Your task to perform on an android device: Do I have any events today? Image 0: 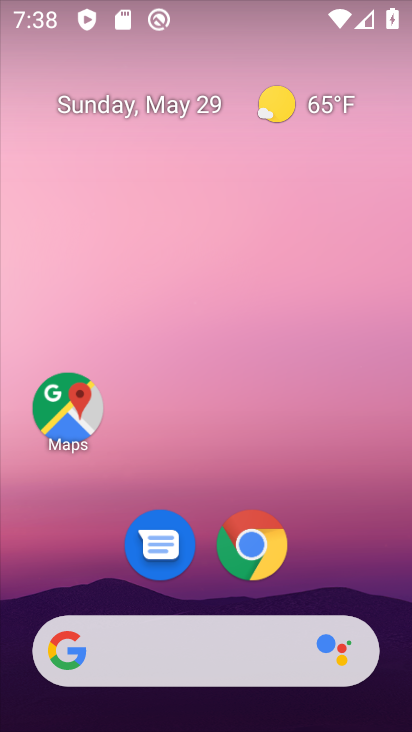
Step 0: drag from (191, 563) to (247, 263)
Your task to perform on an android device: Do I have any events today? Image 1: 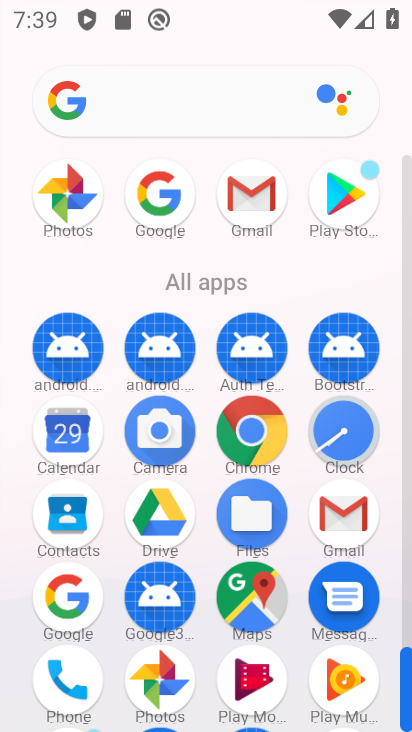
Step 1: click (71, 441)
Your task to perform on an android device: Do I have any events today? Image 2: 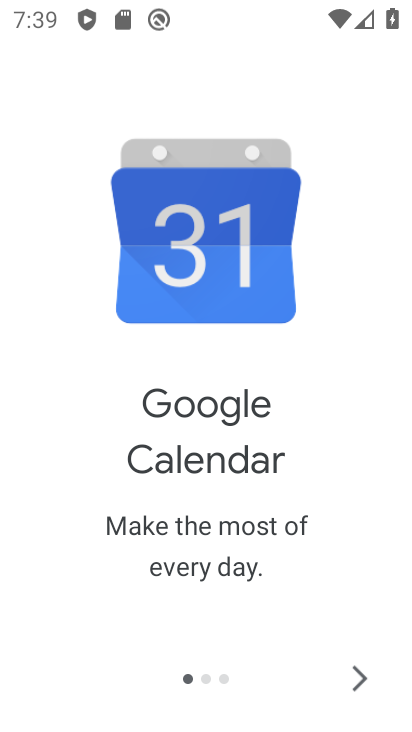
Step 2: click (364, 675)
Your task to perform on an android device: Do I have any events today? Image 3: 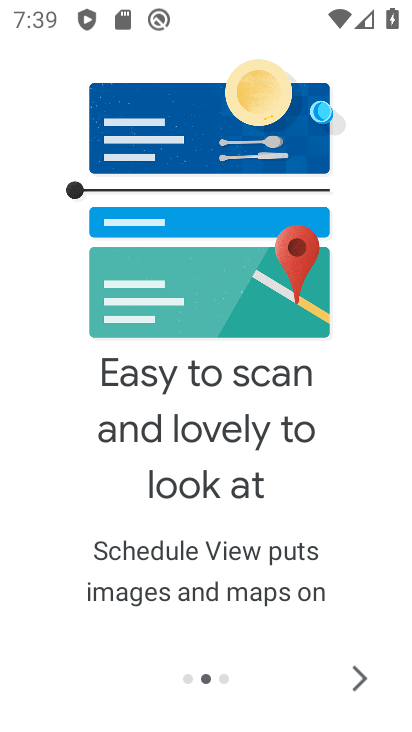
Step 3: click (365, 674)
Your task to perform on an android device: Do I have any events today? Image 4: 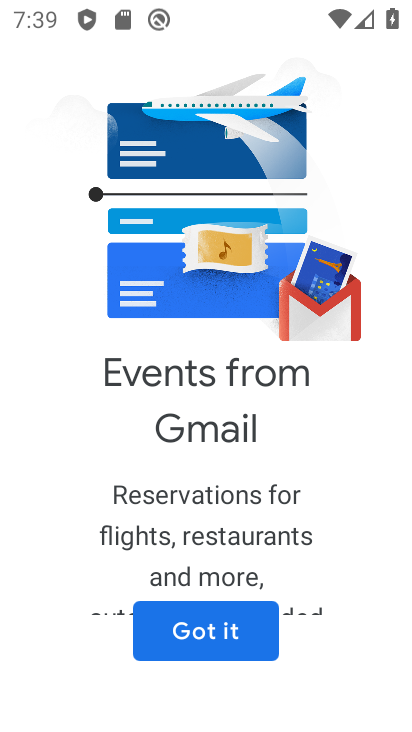
Step 4: click (233, 634)
Your task to perform on an android device: Do I have any events today? Image 5: 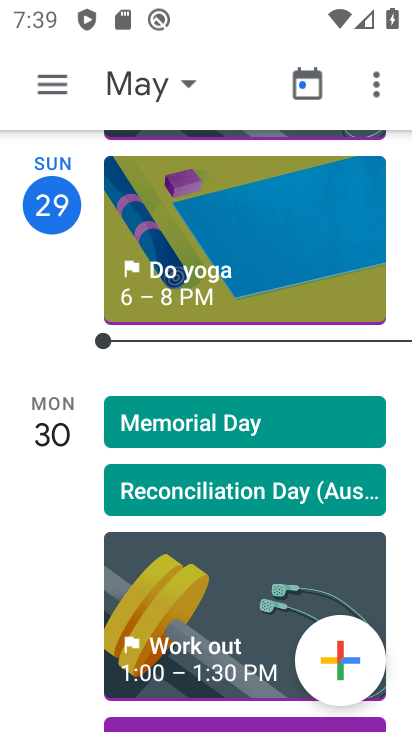
Step 5: click (183, 87)
Your task to perform on an android device: Do I have any events today? Image 6: 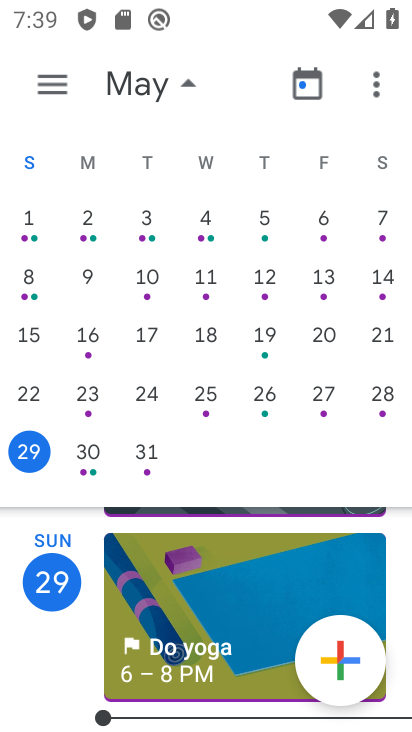
Step 6: click (78, 461)
Your task to perform on an android device: Do I have any events today? Image 7: 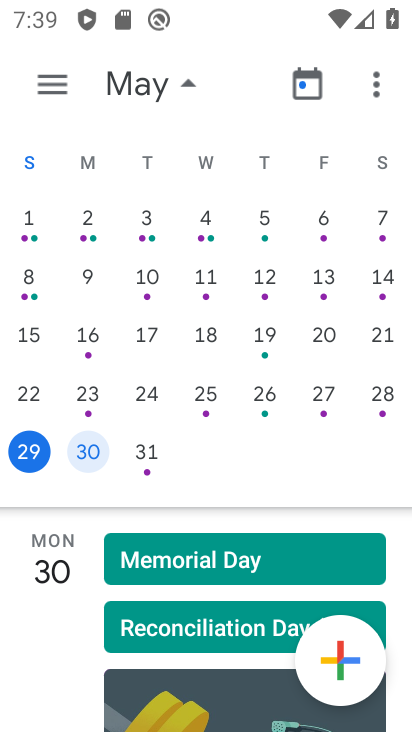
Step 7: task complete